Your task to perform on an android device: Search for a 1/4" hex shank drill bit on Lowe's. Image 0: 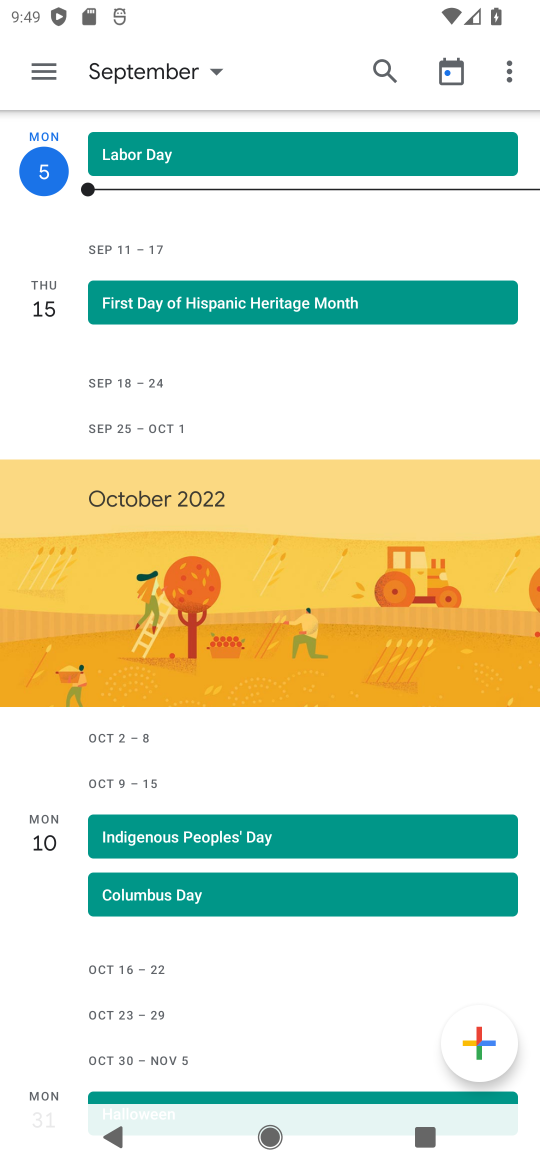
Step 0: task complete